Your task to perform on an android device: turn off wifi Image 0: 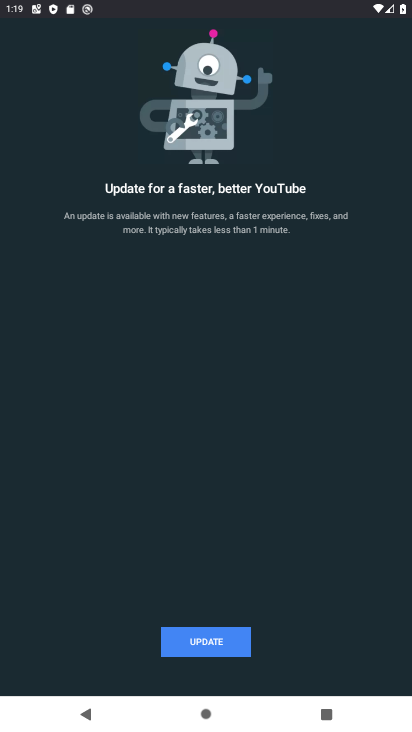
Step 0: press home button
Your task to perform on an android device: turn off wifi Image 1: 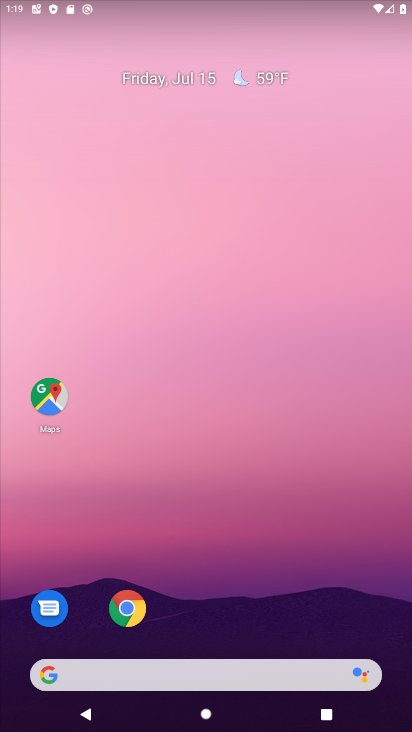
Step 1: drag from (184, 664) to (174, 343)
Your task to perform on an android device: turn off wifi Image 2: 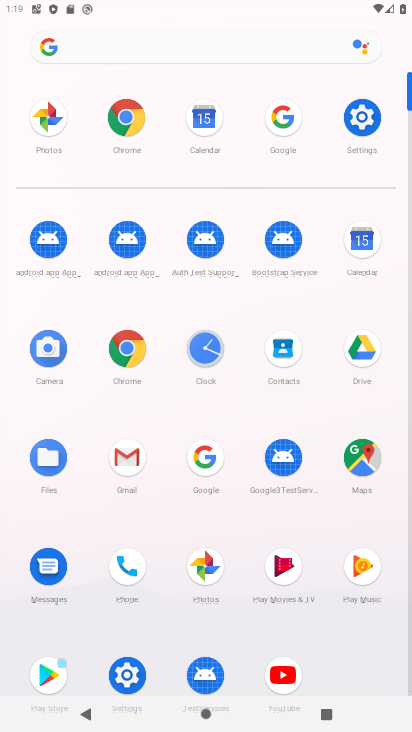
Step 2: click (359, 105)
Your task to perform on an android device: turn off wifi Image 3: 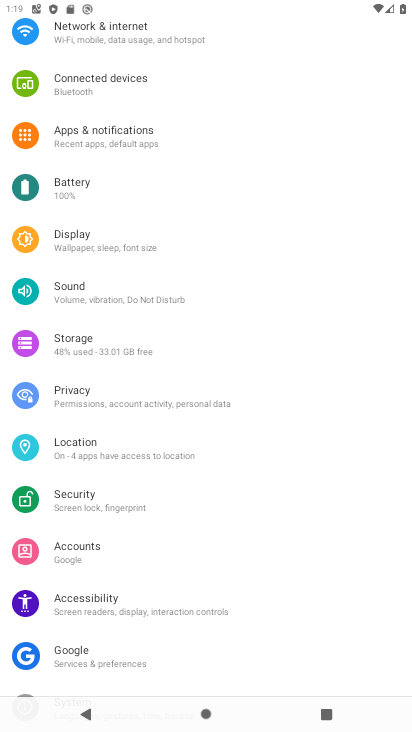
Step 3: drag from (128, 27) to (160, 418)
Your task to perform on an android device: turn off wifi Image 4: 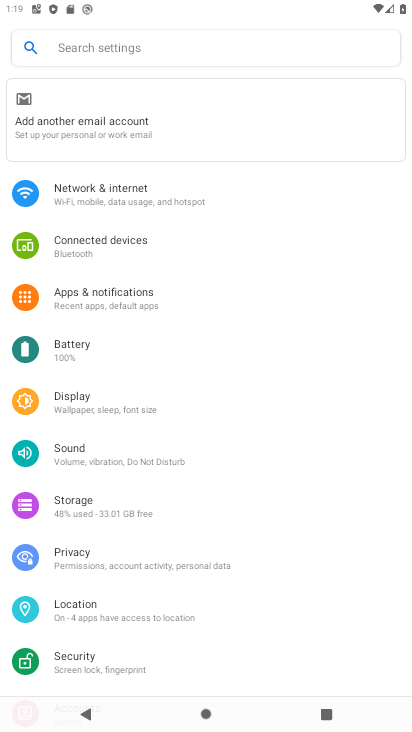
Step 4: click (92, 187)
Your task to perform on an android device: turn off wifi Image 5: 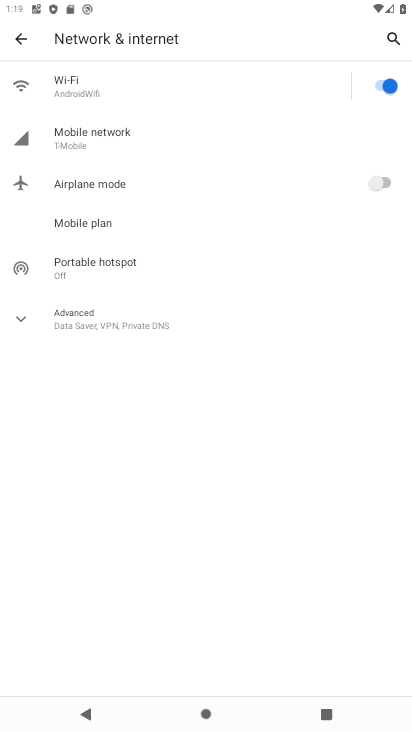
Step 5: click (379, 84)
Your task to perform on an android device: turn off wifi Image 6: 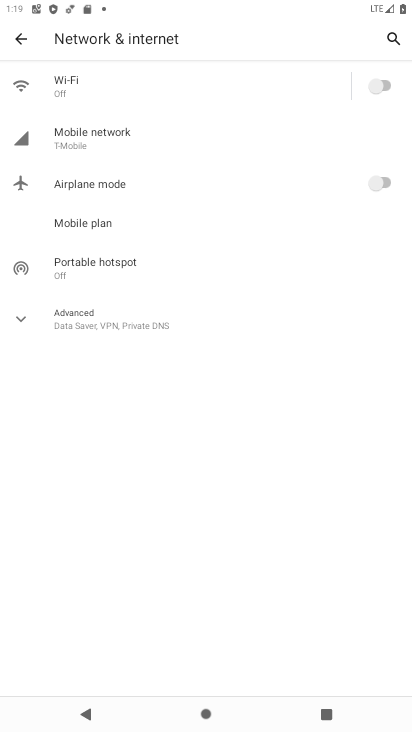
Step 6: task complete